Your task to perform on an android device: Open the calendar app, open the side menu, and click the "Day" option Image 0: 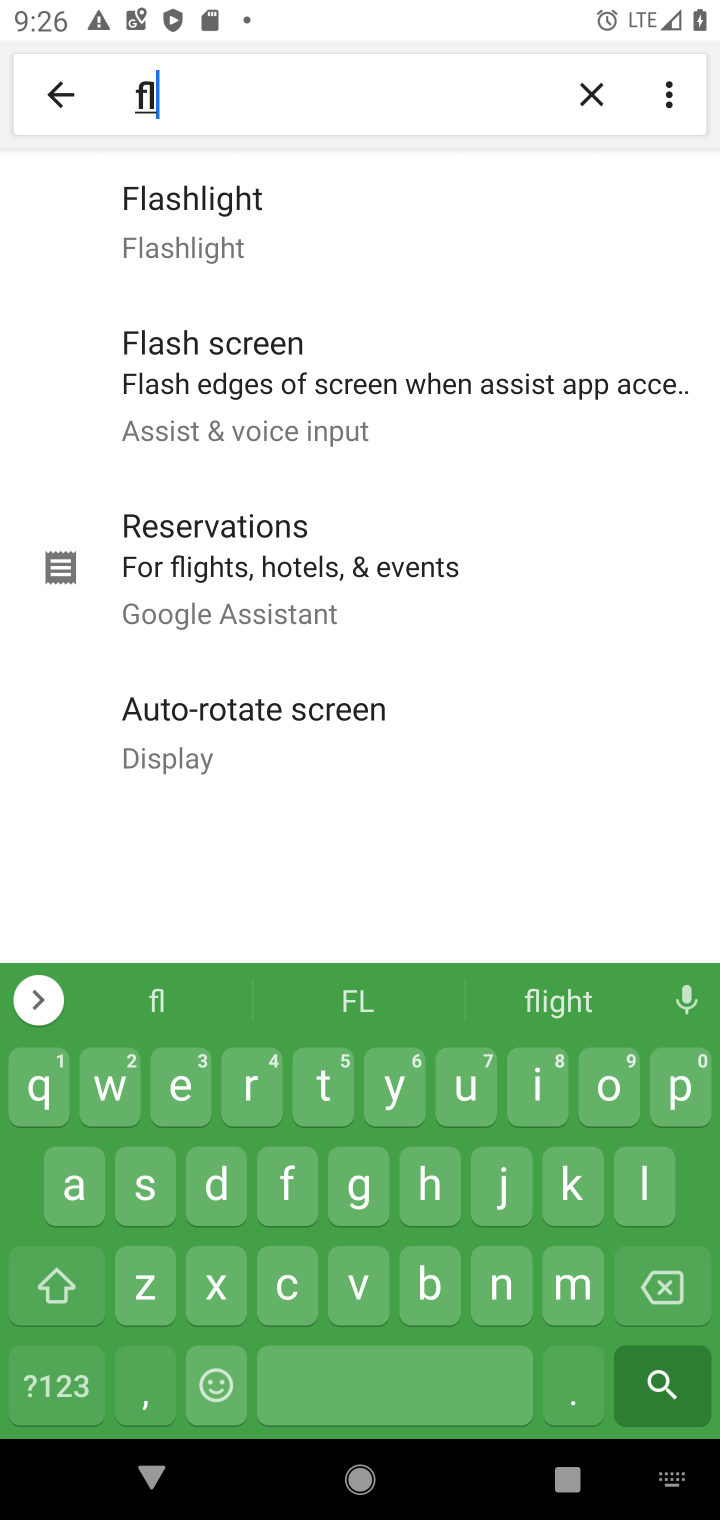
Step 0: press home button
Your task to perform on an android device: Open the calendar app, open the side menu, and click the "Day" option Image 1: 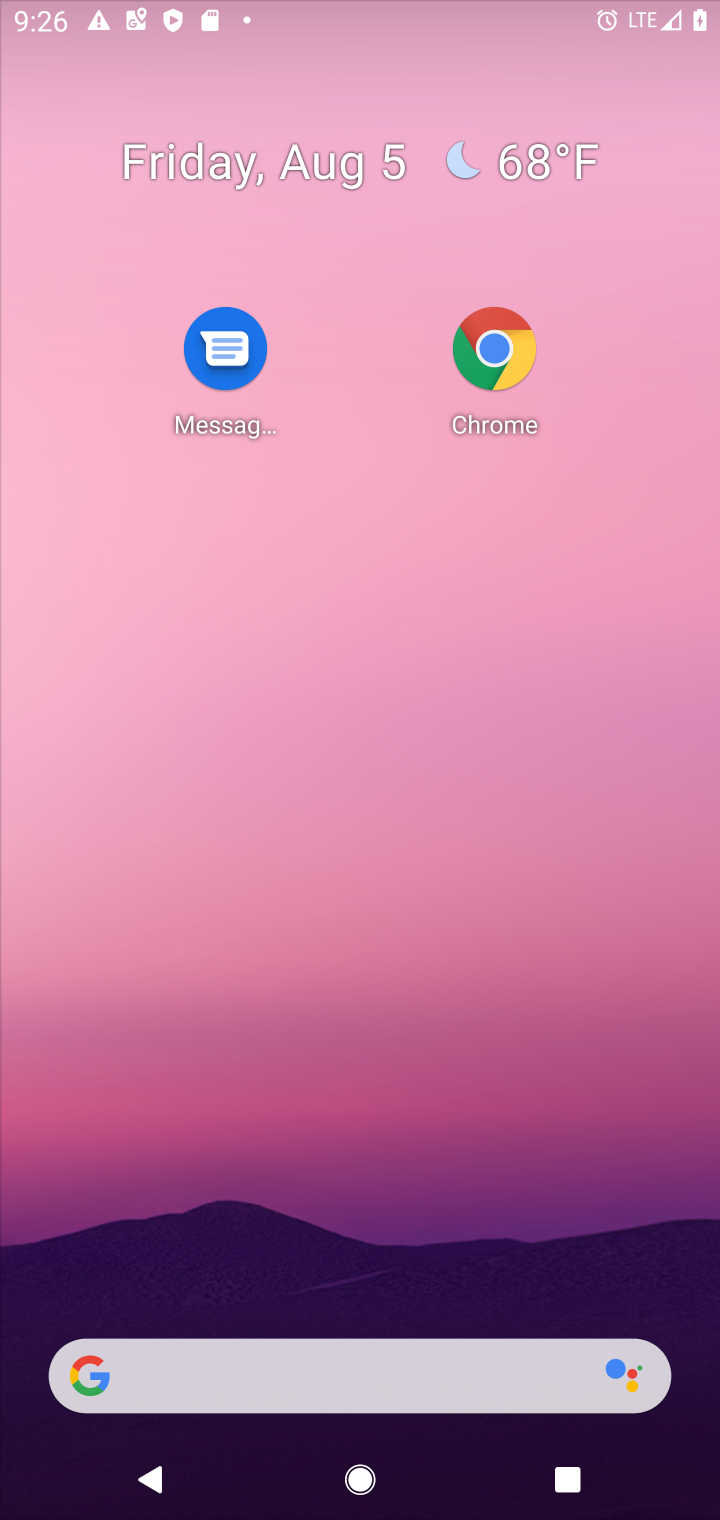
Step 1: drag from (450, 1218) to (350, 352)
Your task to perform on an android device: Open the calendar app, open the side menu, and click the "Day" option Image 2: 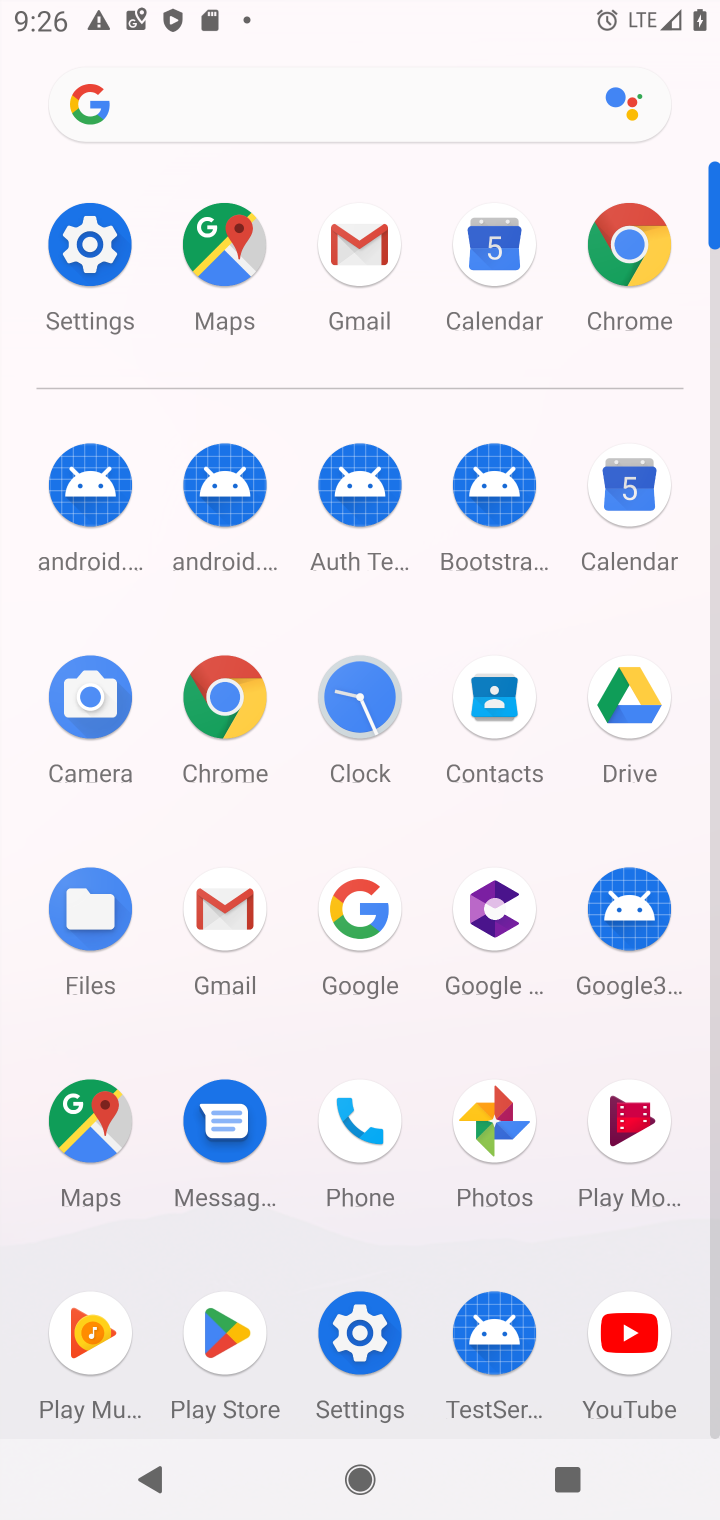
Step 2: click (634, 496)
Your task to perform on an android device: Open the calendar app, open the side menu, and click the "Day" option Image 3: 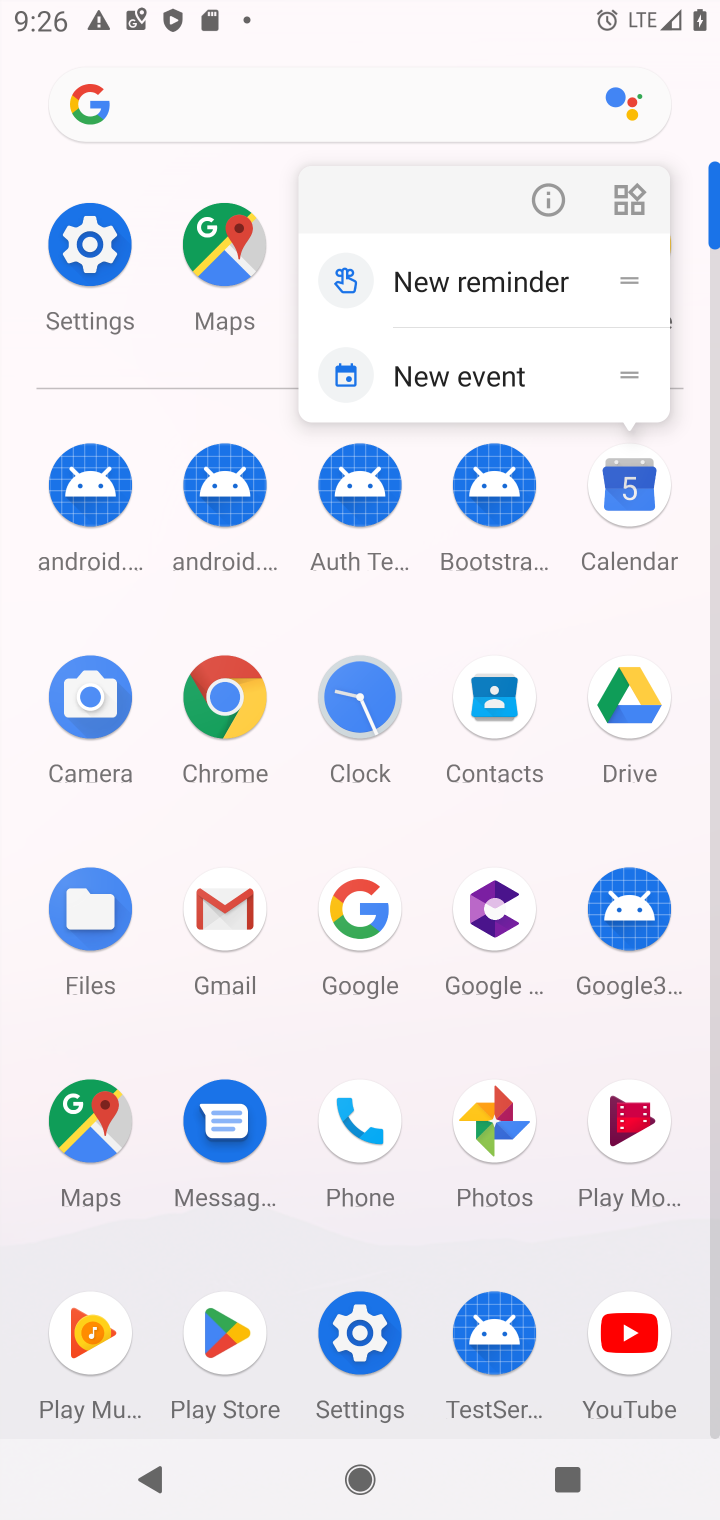
Step 3: click (664, 496)
Your task to perform on an android device: Open the calendar app, open the side menu, and click the "Day" option Image 4: 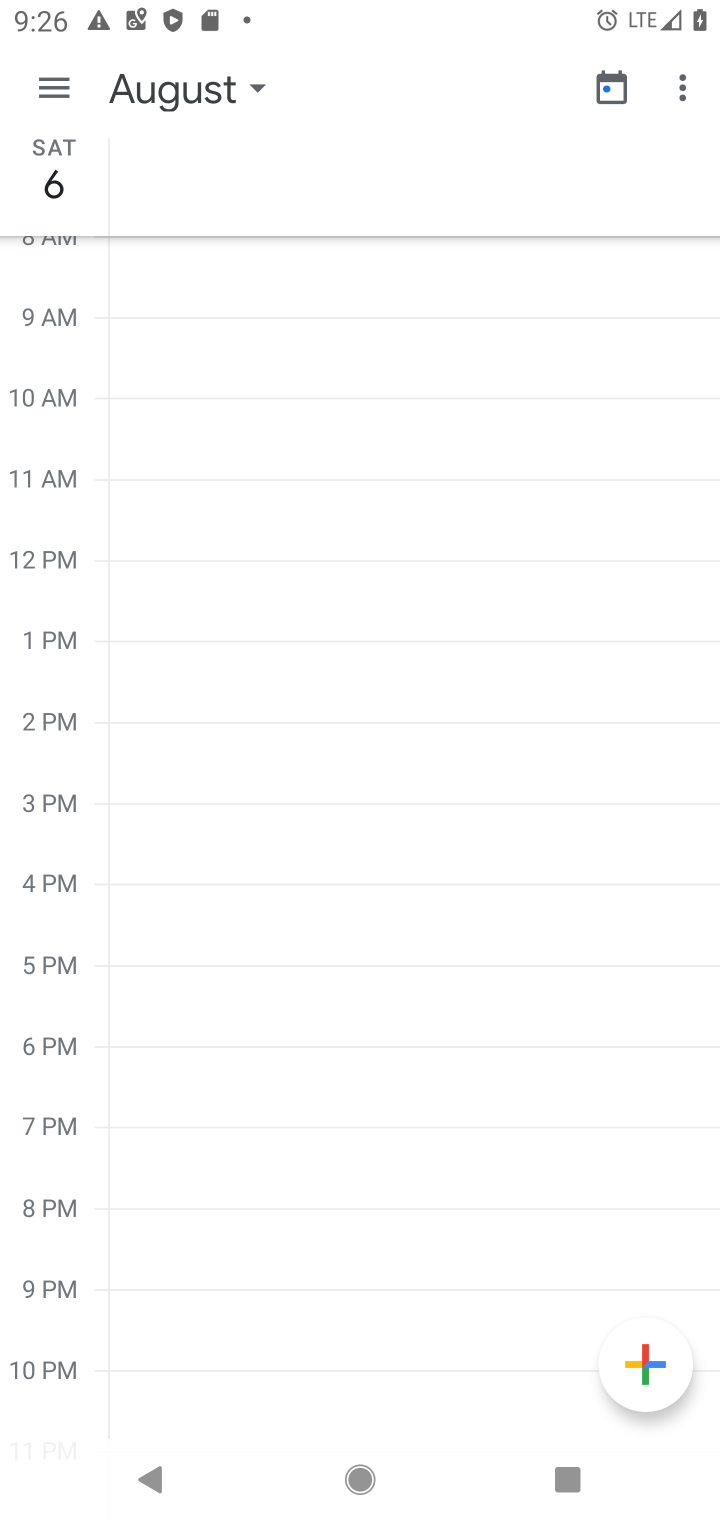
Step 4: click (45, 100)
Your task to perform on an android device: Open the calendar app, open the side menu, and click the "Day" option Image 5: 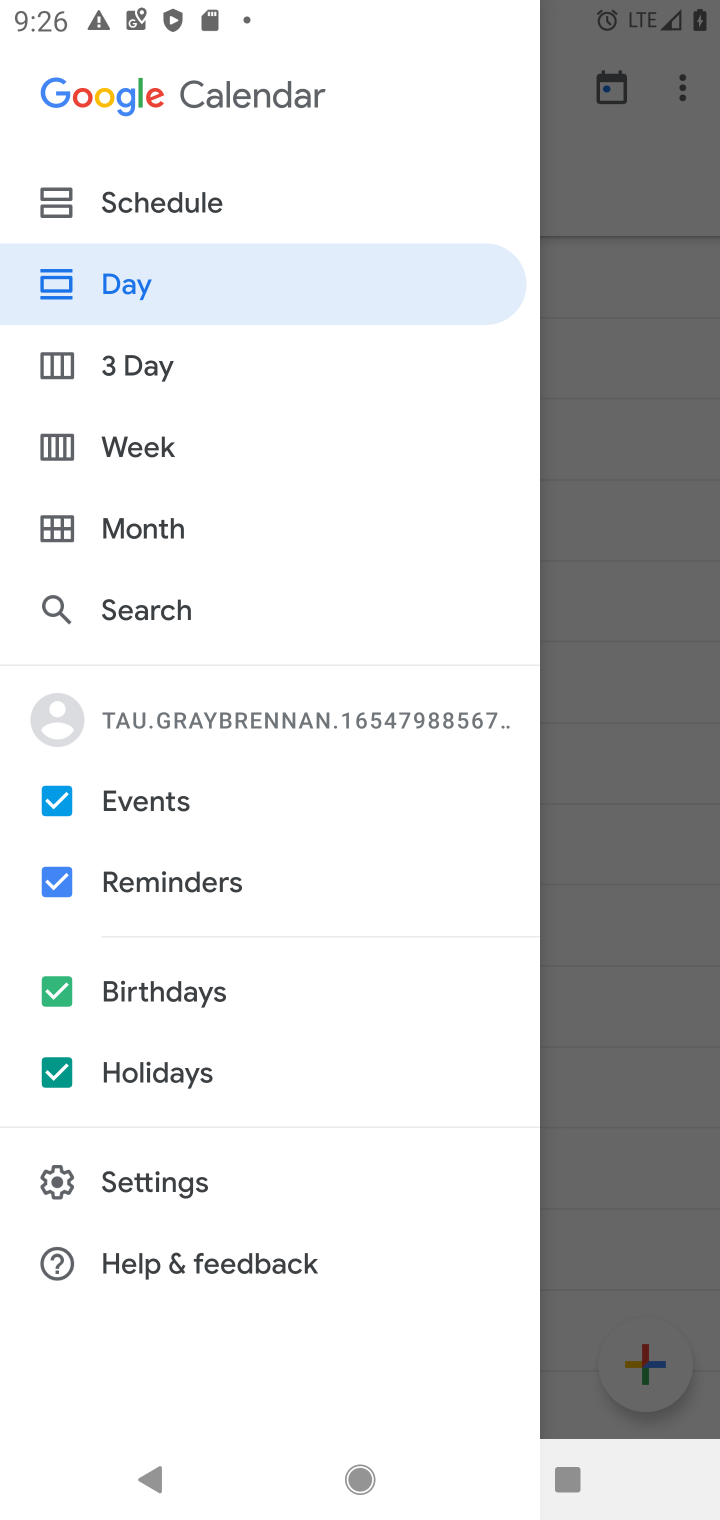
Step 5: click (104, 281)
Your task to perform on an android device: Open the calendar app, open the side menu, and click the "Day" option Image 6: 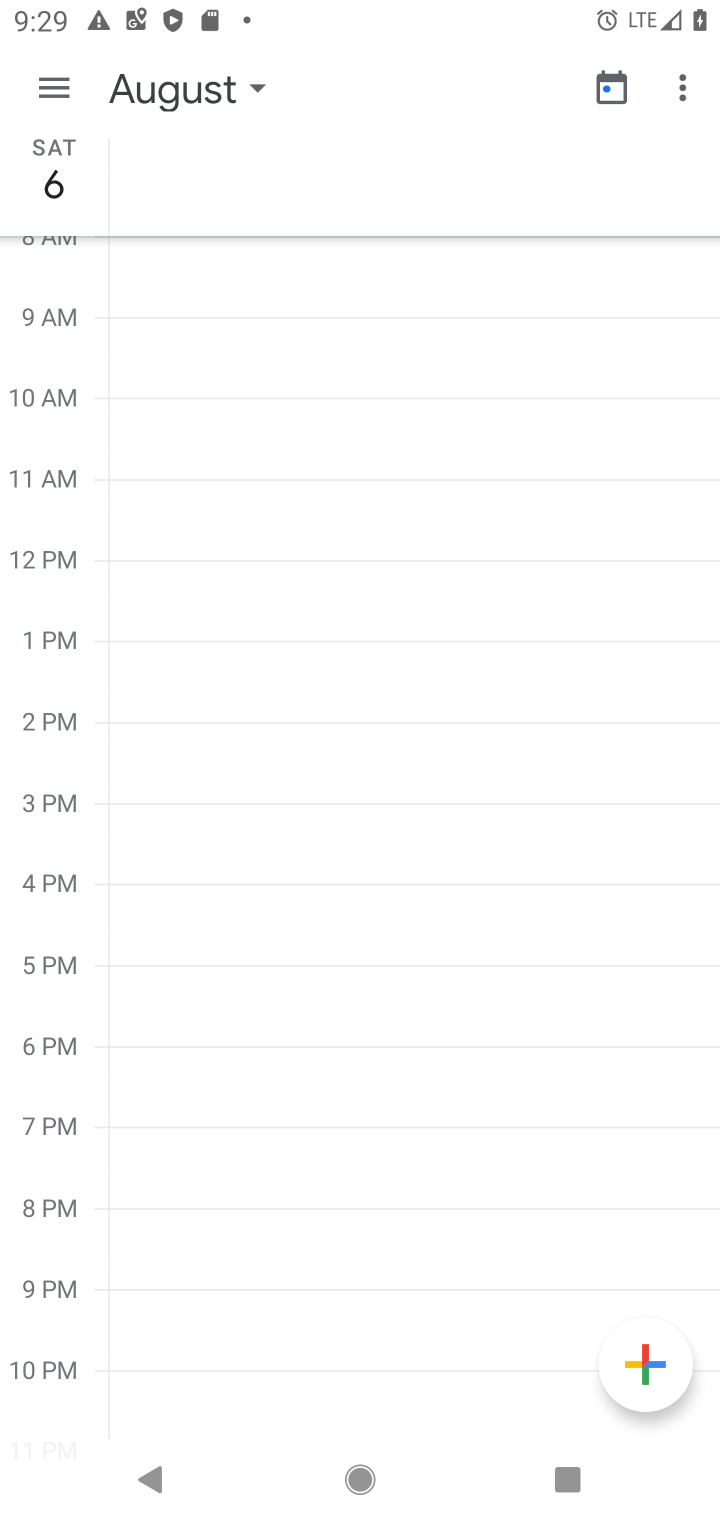
Step 6: task complete